Your task to perform on an android device: Install the Uber app Image 0: 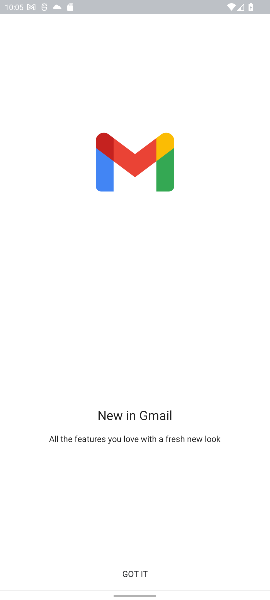
Step 0: press home button
Your task to perform on an android device: Install the Uber app Image 1: 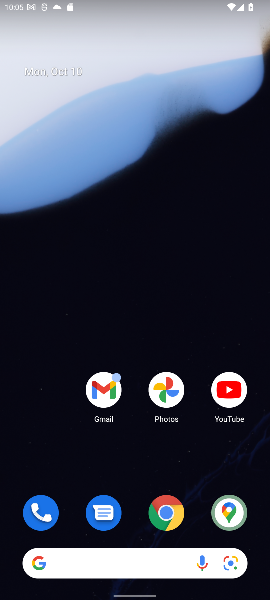
Step 1: drag from (130, 505) to (104, 9)
Your task to perform on an android device: Install the Uber app Image 2: 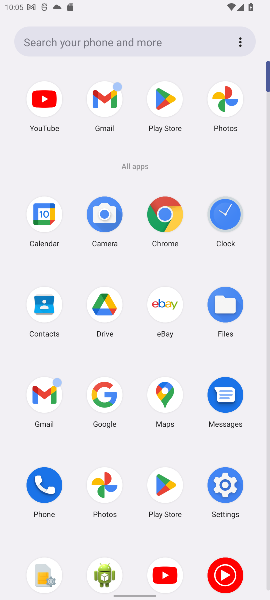
Step 2: click (159, 487)
Your task to perform on an android device: Install the Uber app Image 3: 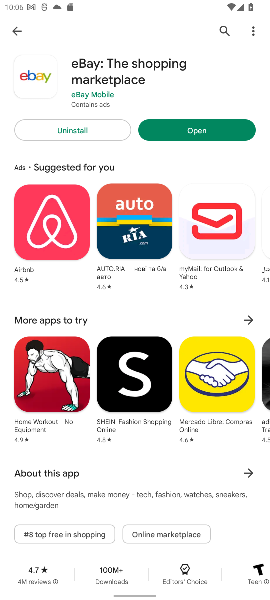
Step 3: click (15, 31)
Your task to perform on an android device: Install the Uber app Image 4: 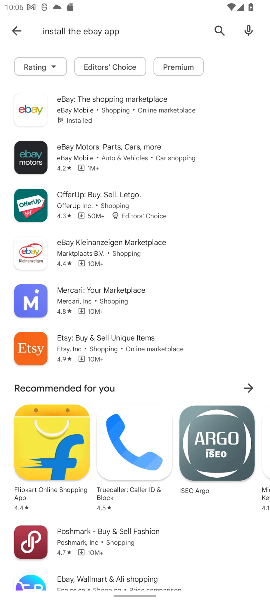
Step 4: click (12, 28)
Your task to perform on an android device: Install the Uber app Image 5: 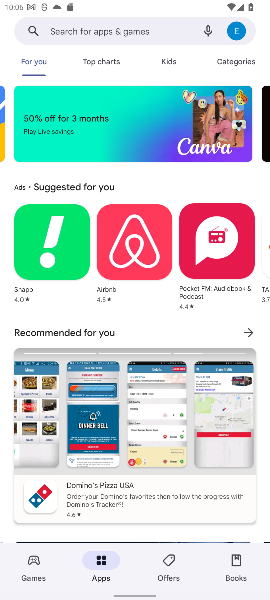
Step 5: click (82, 32)
Your task to perform on an android device: Install the Uber app Image 6: 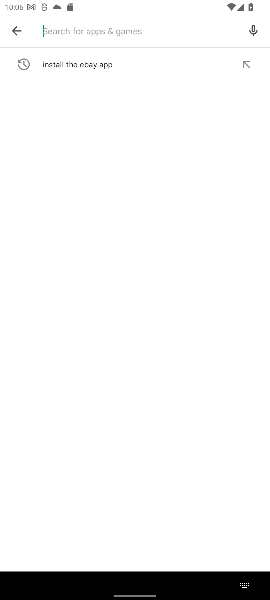
Step 6: type " Uber app"
Your task to perform on an android device: Install the Uber app Image 7: 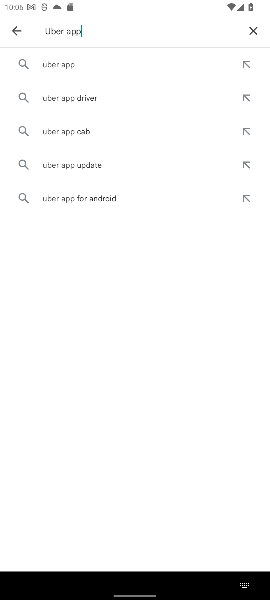
Step 7: click (64, 65)
Your task to perform on an android device: Install the Uber app Image 8: 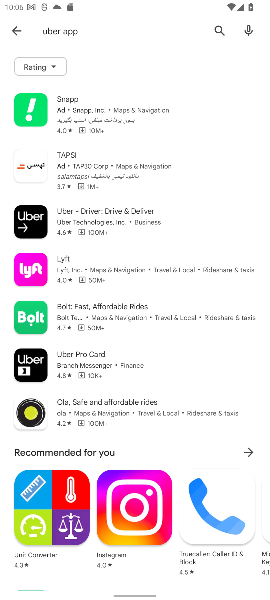
Step 8: click (93, 222)
Your task to perform on an android device: Install the Uber app Image 9: 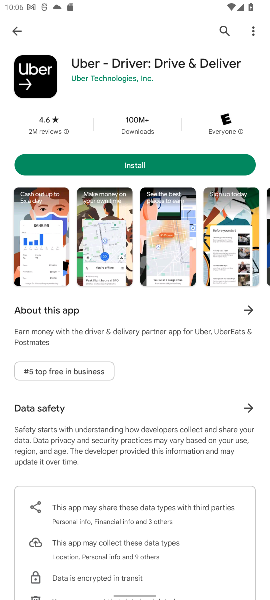
Step 9: click (132, 167)
Your task to perform on an android device: Install the Uber app Image 10: 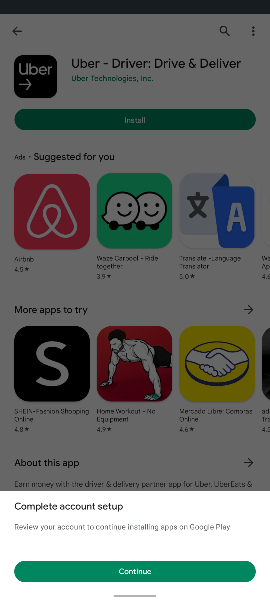
Step 10: click (138, 570)
Your task to perform on an android device: Install the Uber app Image 11: 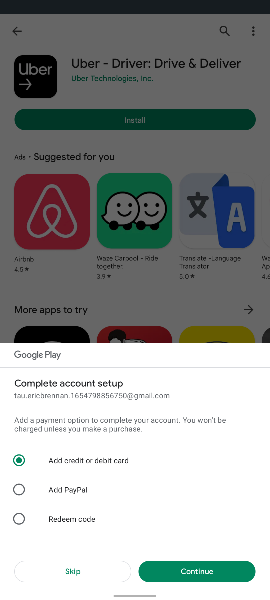
Step 11: click (80, 573)
Your task to perform on an android device: Install the Uber app Image 12: 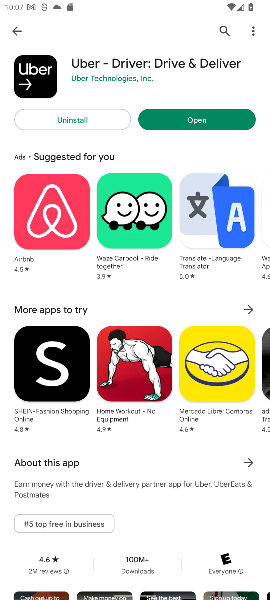
Step 12: click (196, 115)
Your task to perform on an android device: Install the Uber app Image 13: 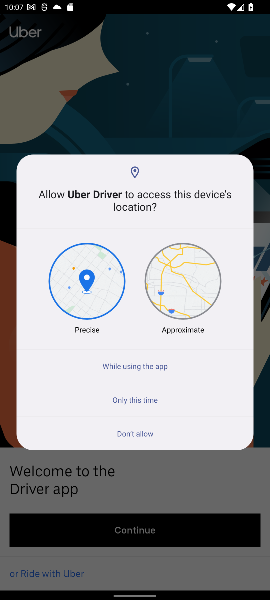
Step 13: task complete